Your task to perform on an android device: Open location settings Image 0: 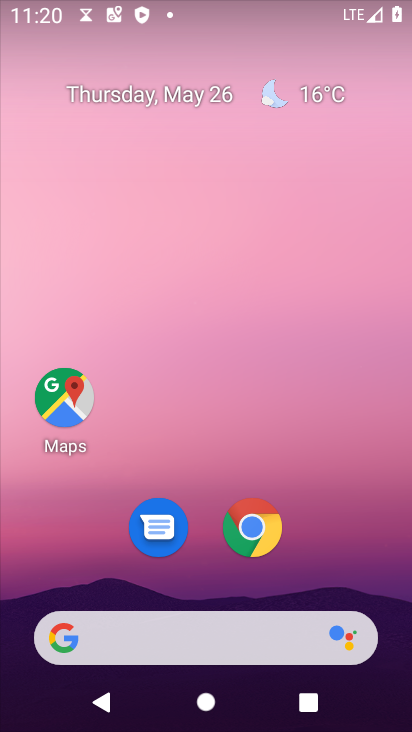
Step 0: drag from (200, 574) to (141, 21)
Your task to perform on an android device: Open location settings Image 1: 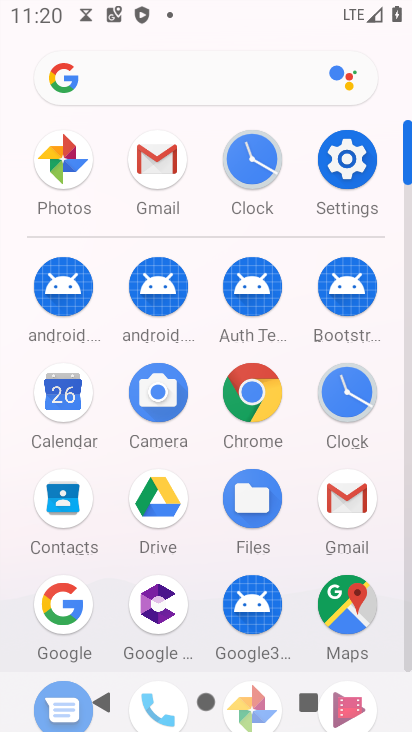
Step 1: click (335, 173)
Your task to perform on an android device: Open location settings Image 2: 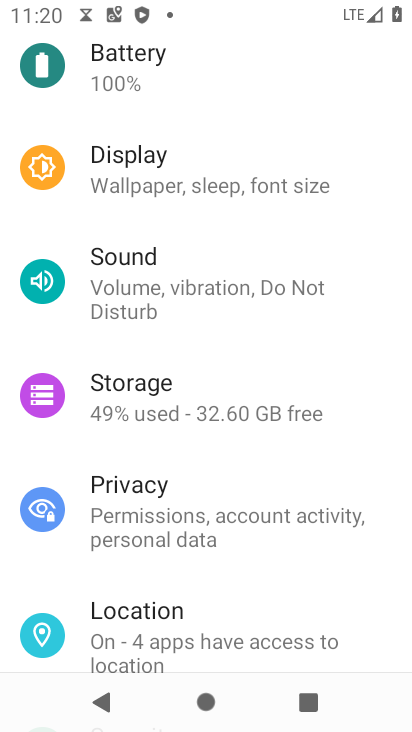
Step 2: click (164, 616)
Your task to perform on an android device: Open location settings Image 3: 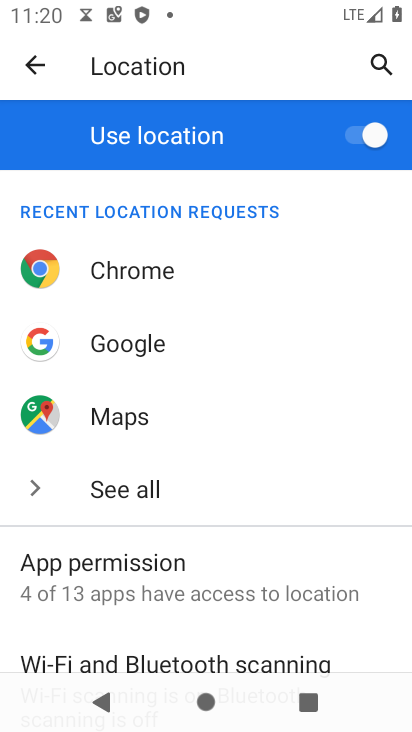
Step 3: task complete